Your task to perform on an android device: Add "apple airpods pro" to the cart on amazon, then select checkout. Image 0: 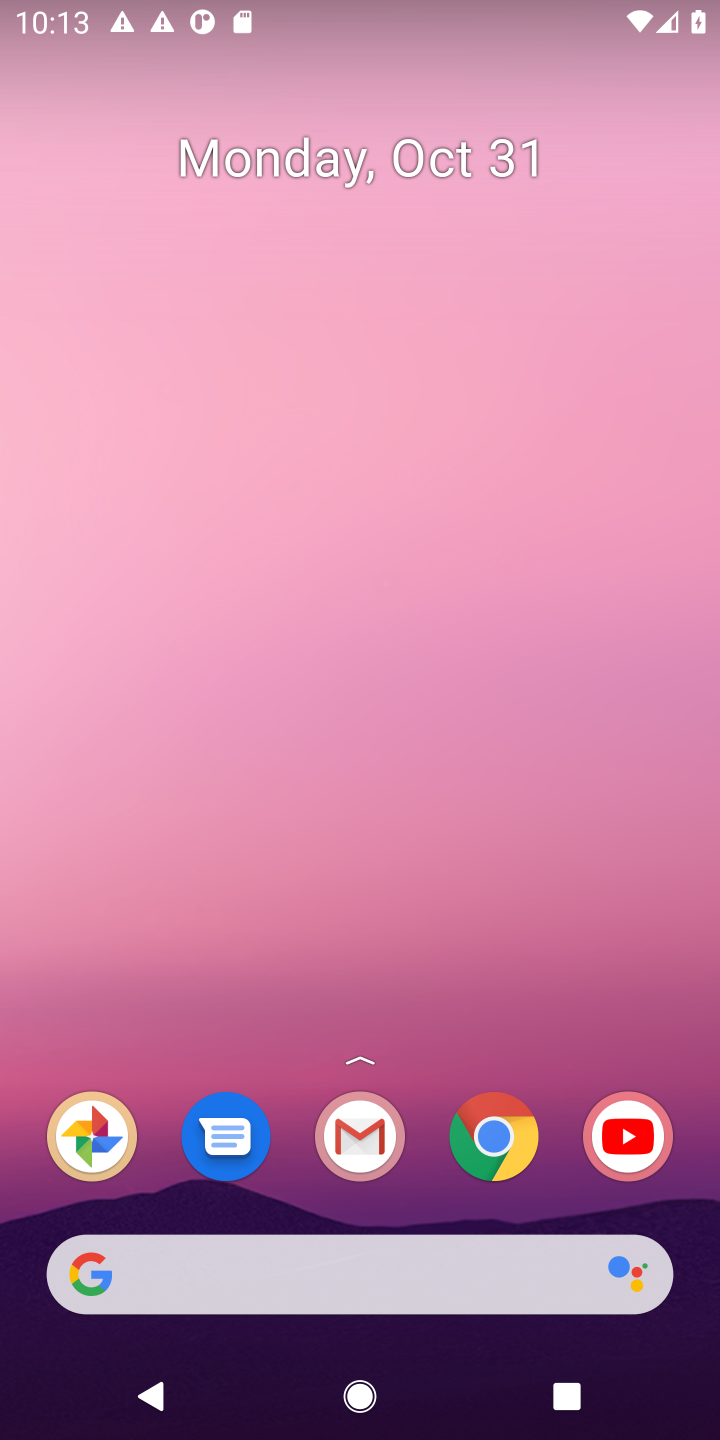
Step 0: press home button
Your task to perform on an android device: Add "apple airpods pro" to the cart on amazon, then select checkout. Image 1: 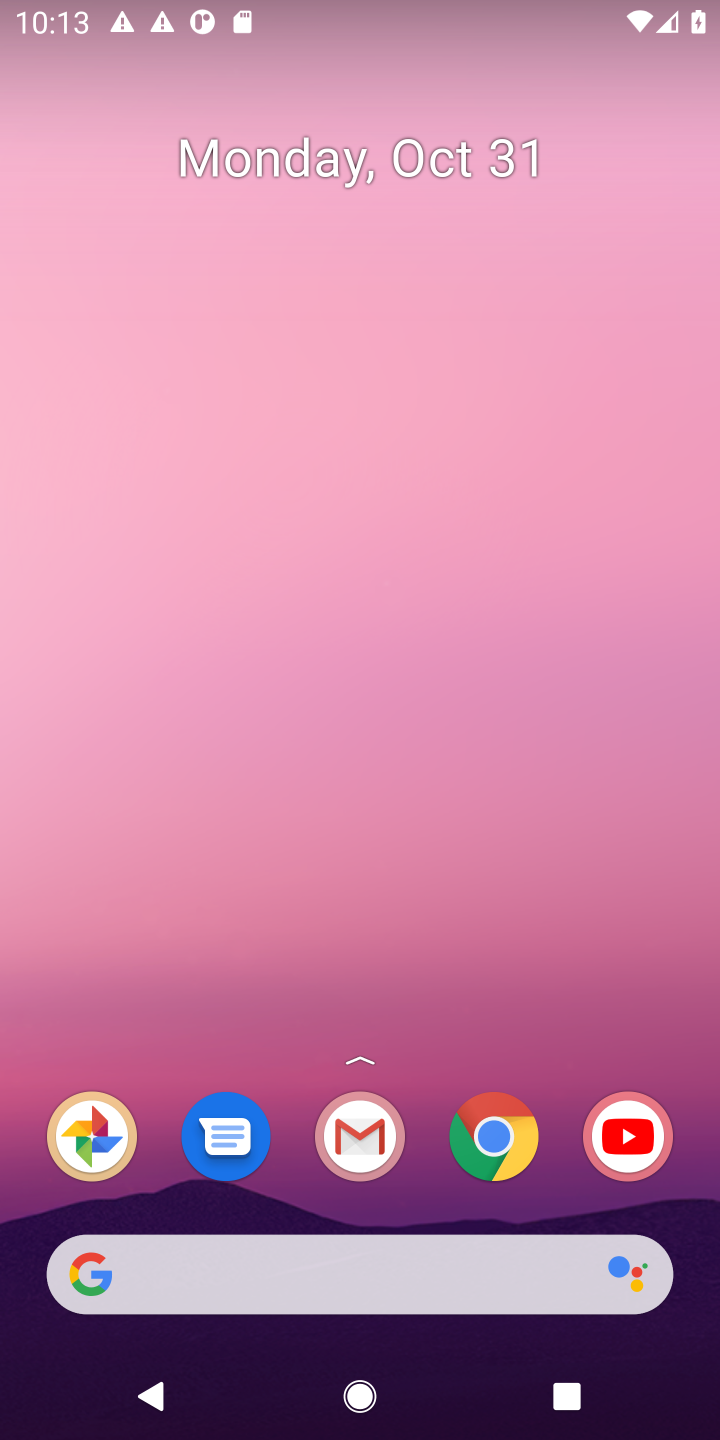
Step 1: click (136, 1277)
Your task to perform on an android device: Add "apple airpods pro" to the cart on amazon, then select checkout. Image 2: 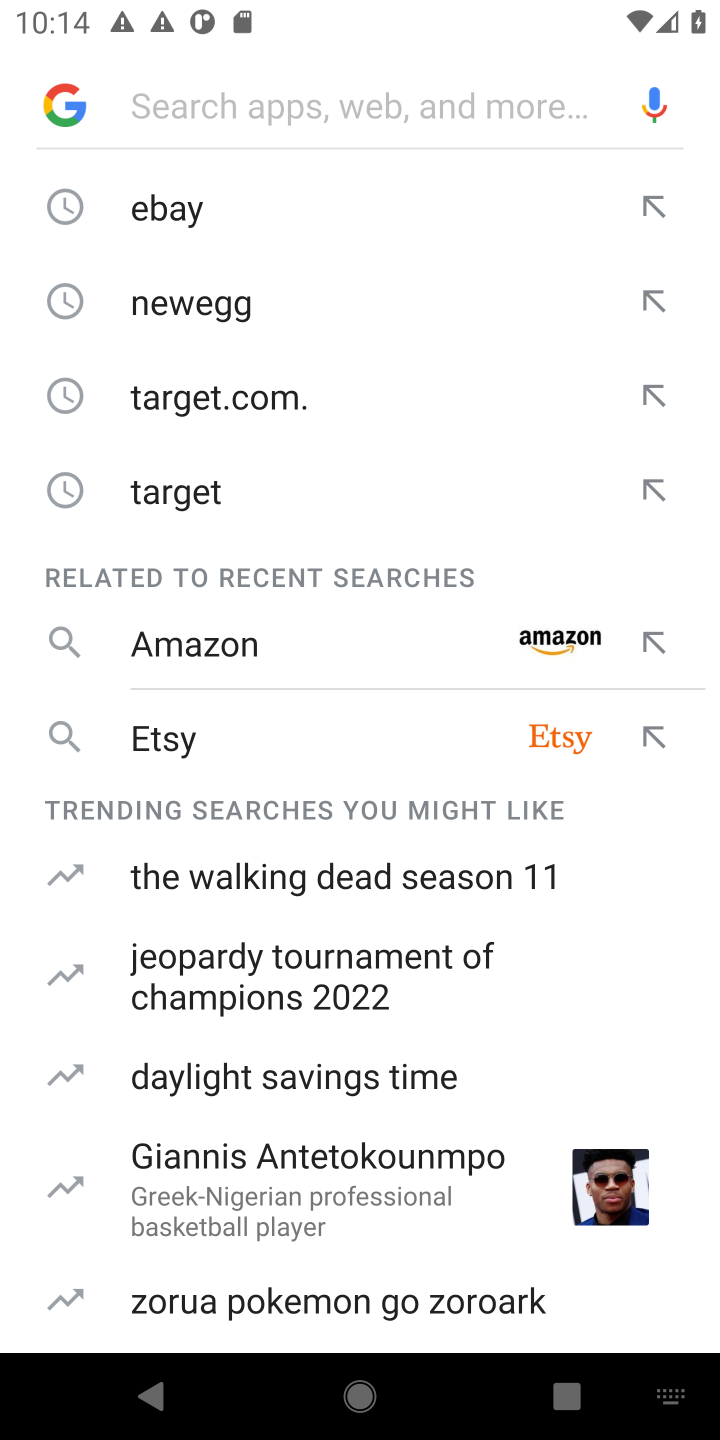
Step 2: press enter
Your task to perform on an android device: Add "apple airpods pro" to the cart on amazon, then select checkout. Image 3: 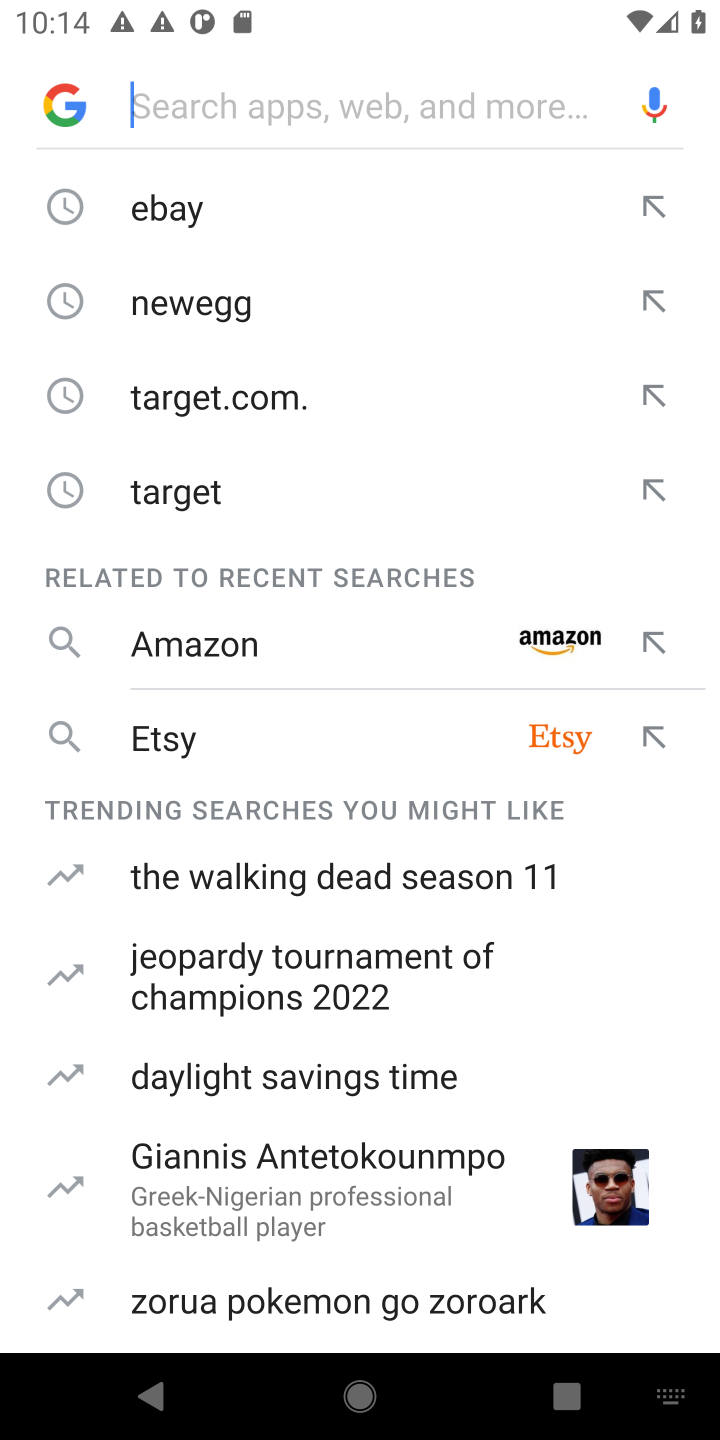
Step 3: type "amazon"
Your task to perform on an android device: Add "apple airpods pro" to the cart on amazon, then select checkout. Image 4: 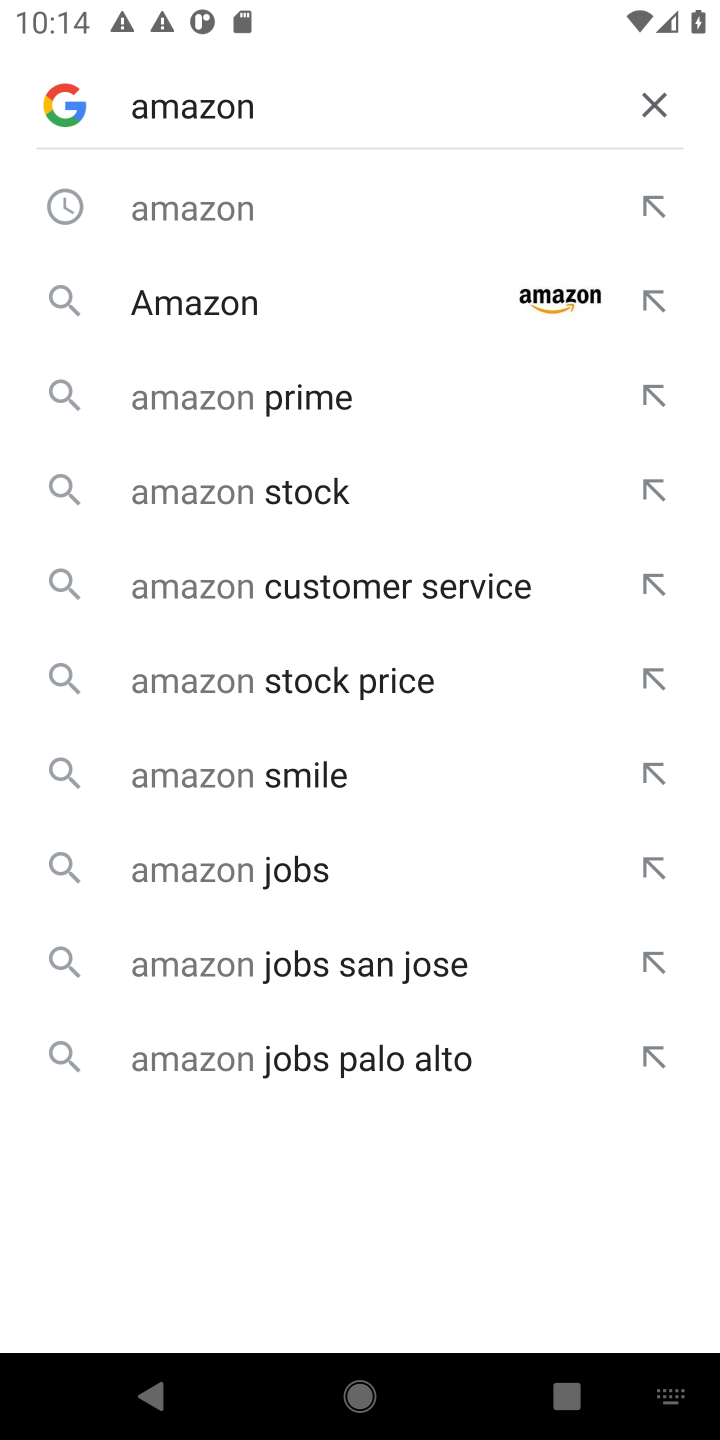
Step 4: press enter
Your task to perform on an android device: Add "apple airpods pro" to the cart on amazon, then select checkout. Image 5: 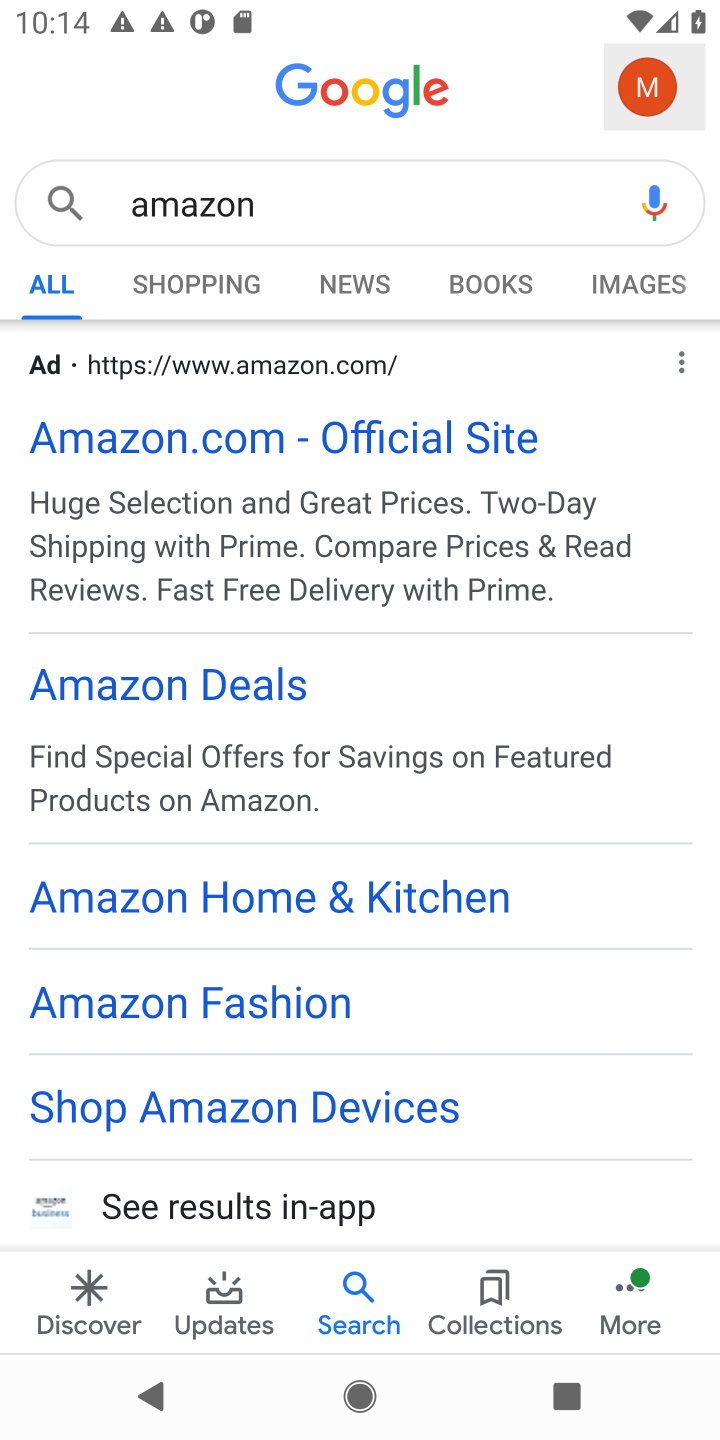
Step 5: click (340, 427)
Your task to perform on an android device: Add "apple airpods pro" to the cart on amazon, then select checkout. Image 6: 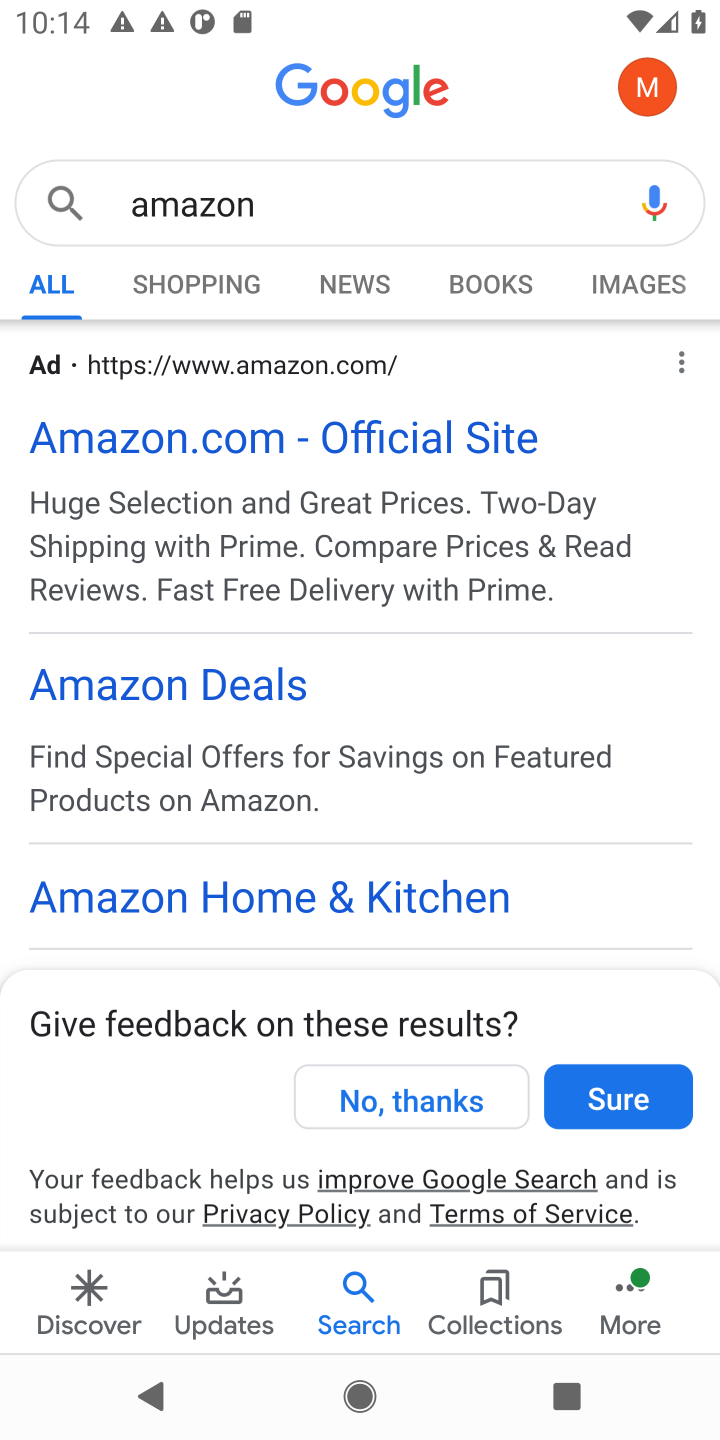
Step 6: click (340, 427)
Your task to perform on an android device: Add "apple airpods pro" to the cart on amazon, then select checkout. Image 7: 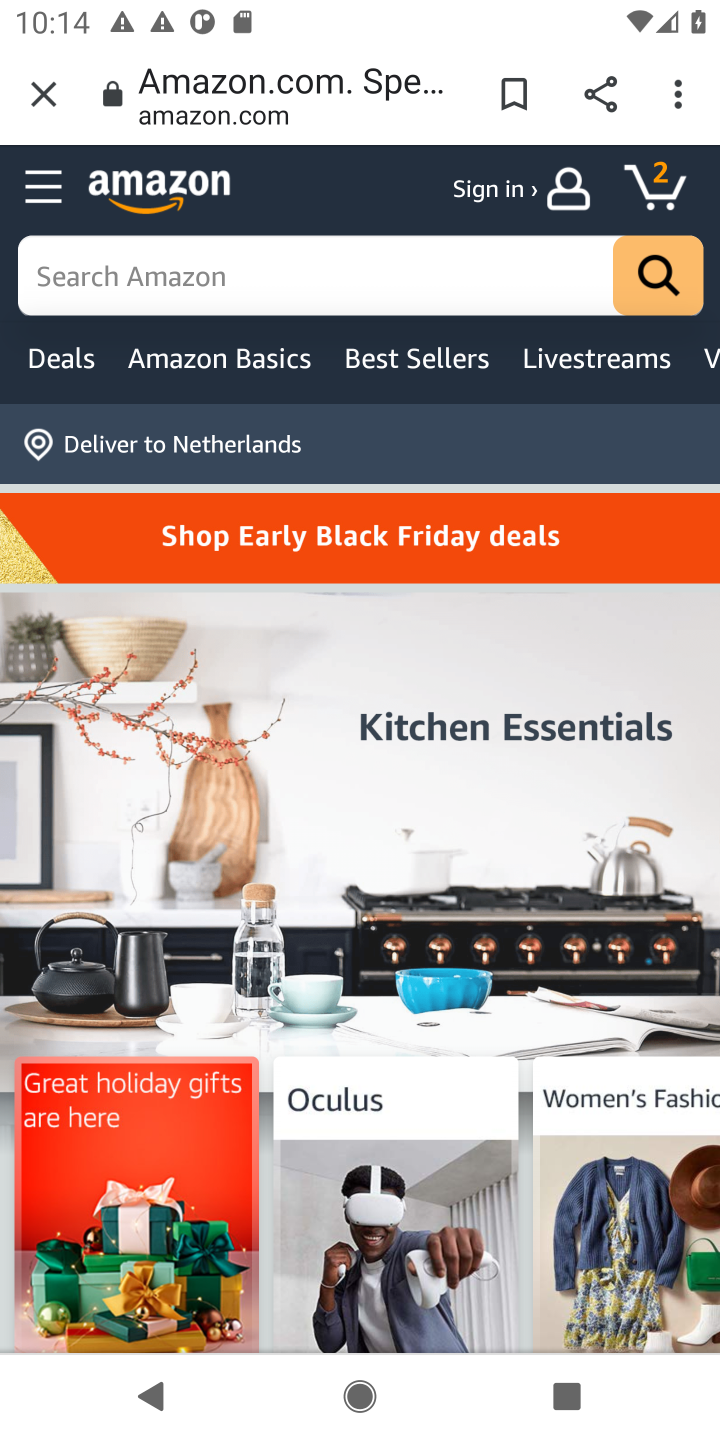
Step 7: click (276, 252)
Your task to perform on an android device: Add "apple airpods pro" to the cart on amazon, then select checkout. Image 8: 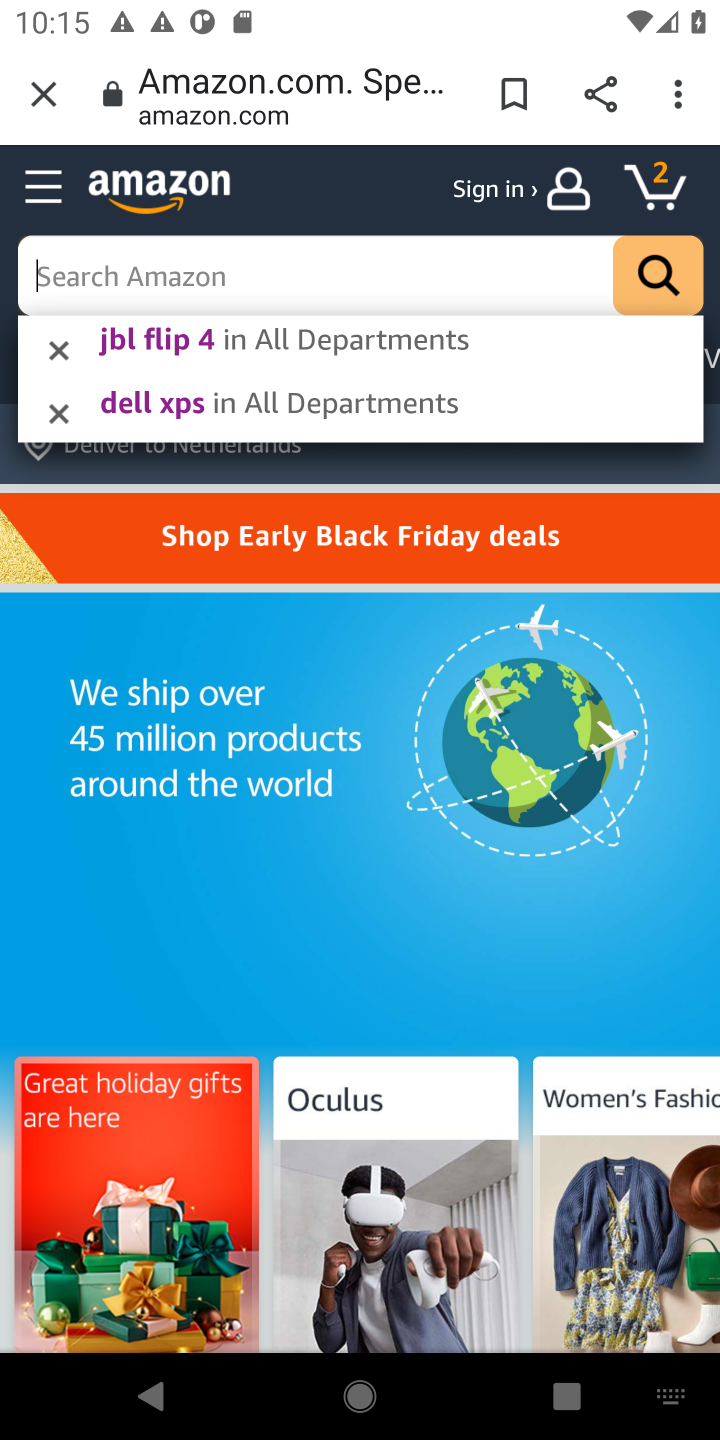
Step 8: type "apple airpods pro"
Your task to perform on an android device: Add "apple airpods pro" to the cart on amazon, then select checkout. Image 9: 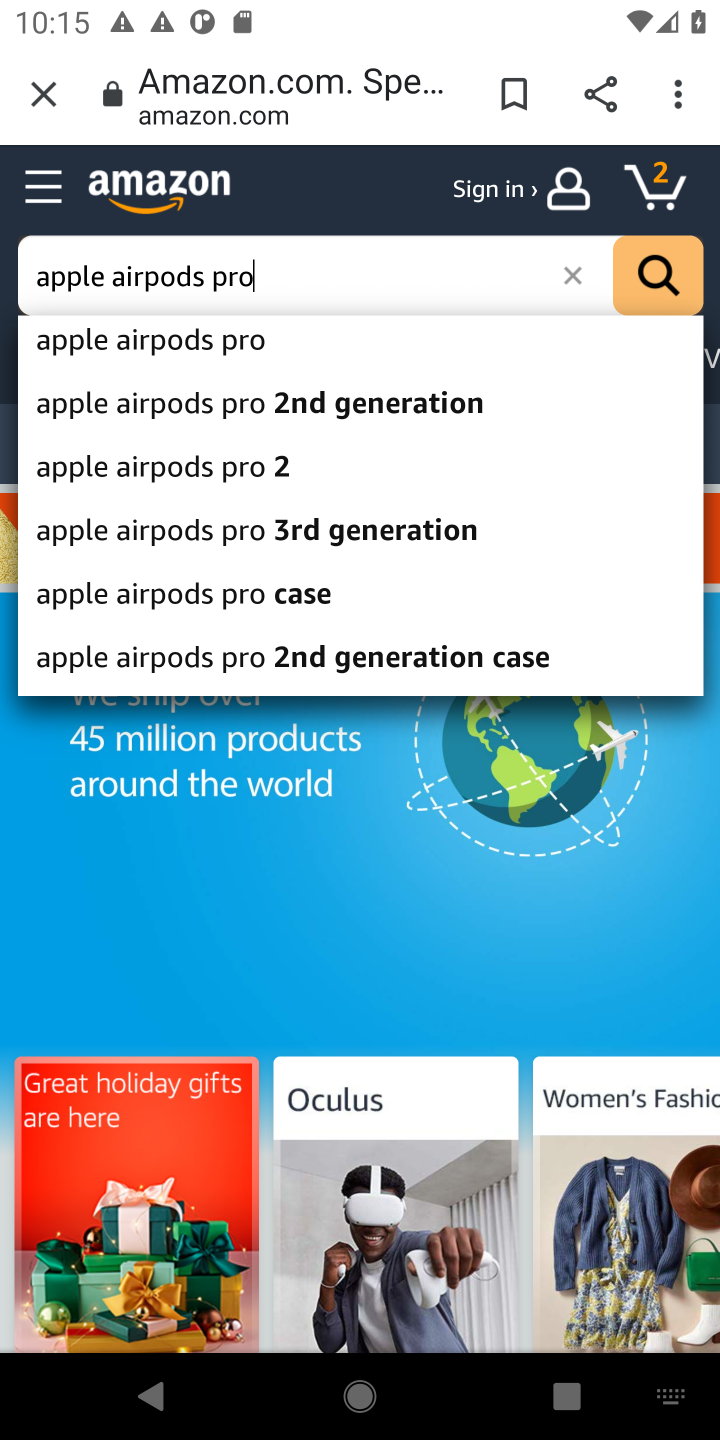
Step 9: click (649, 266)
Your task to perform on an android device: Add "apple airpods pro" to the cart on amazon, then select checkout. Image 10: 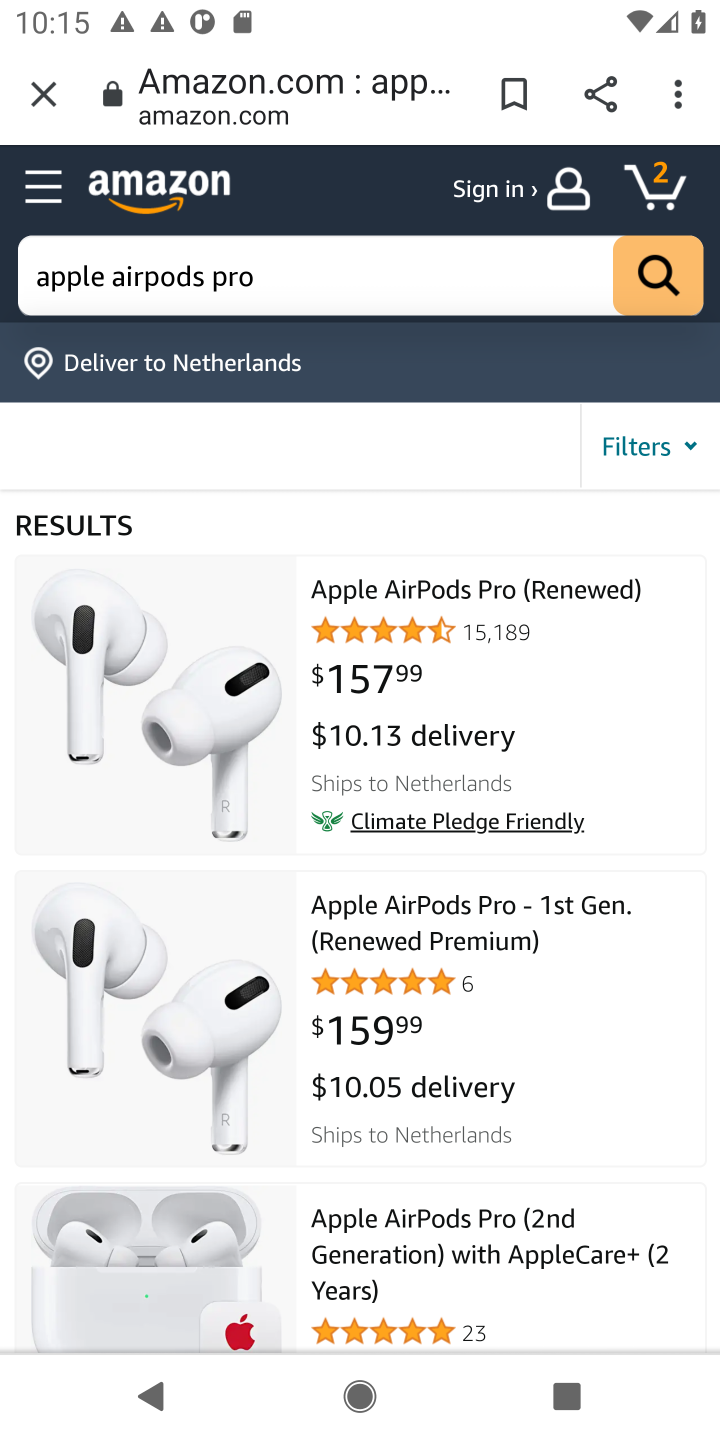
Step 10: click (482, 604)
Your task to perform on an android device: Add "apple airpods pro" to the cart on amazon, then select checkout. Image 11: 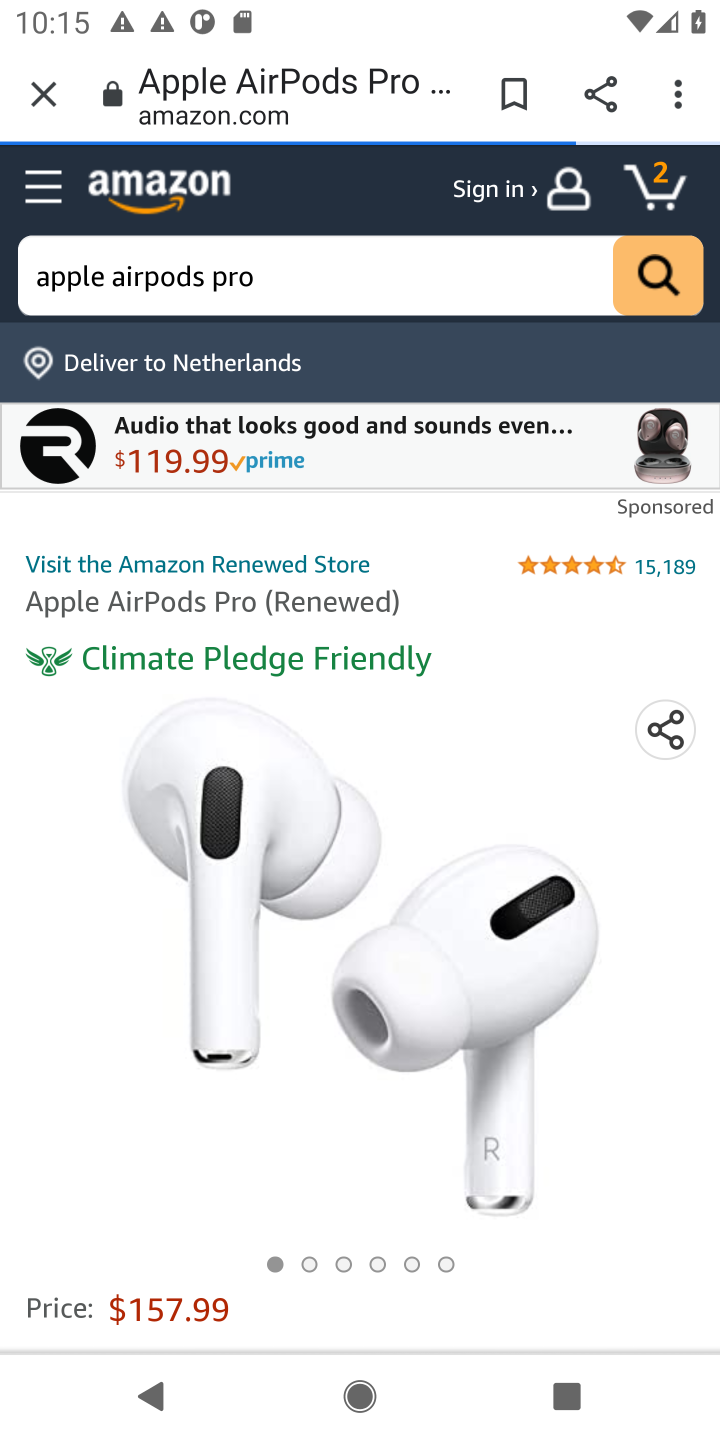
Step 11: drag from (365, 1141) to (447, 683)
Your task to perform on an android device: Add "apple airpods pro" to the cart on amazon, then select checkout. Image 12: 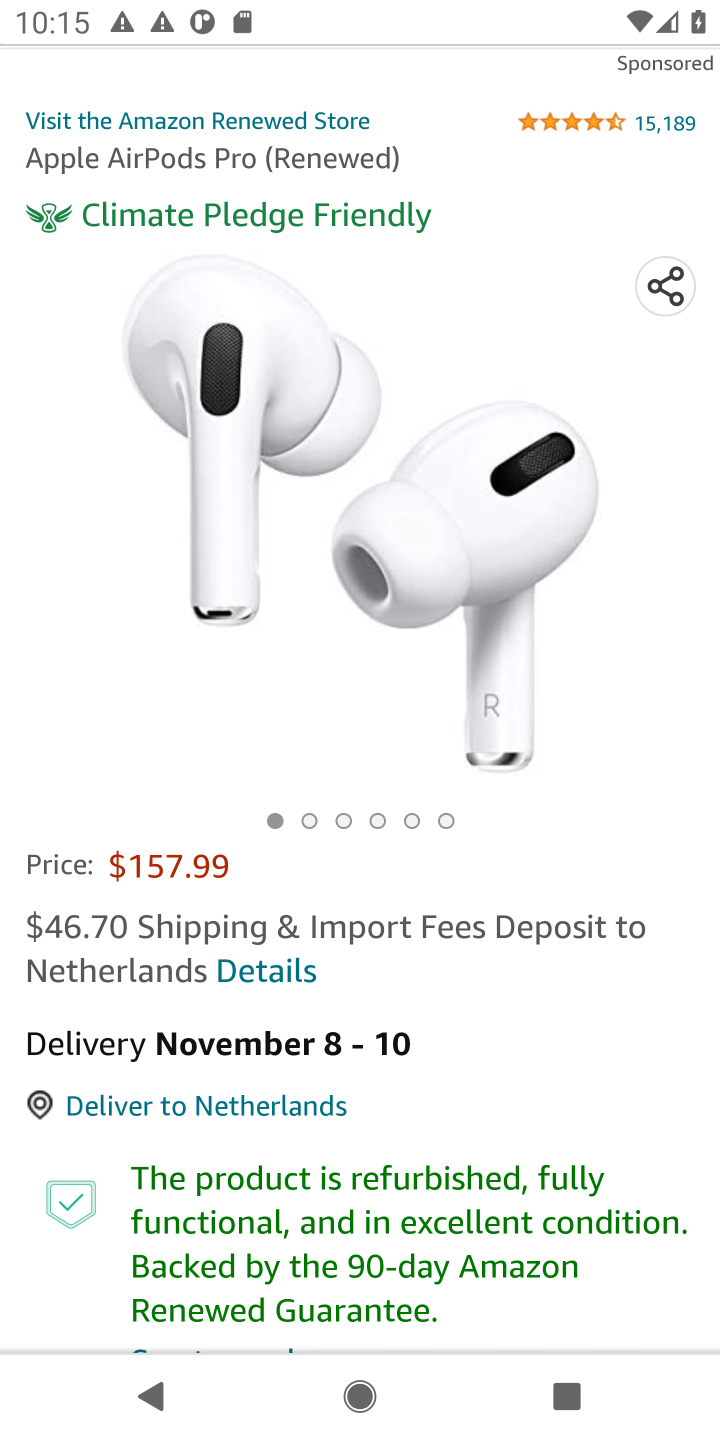
Step 12: drag from (352, 1148) to (397, 674)
Your task to perform on an android device: Add "apple airpods pro" to the cart on amazon, then select checkout. Image 13: 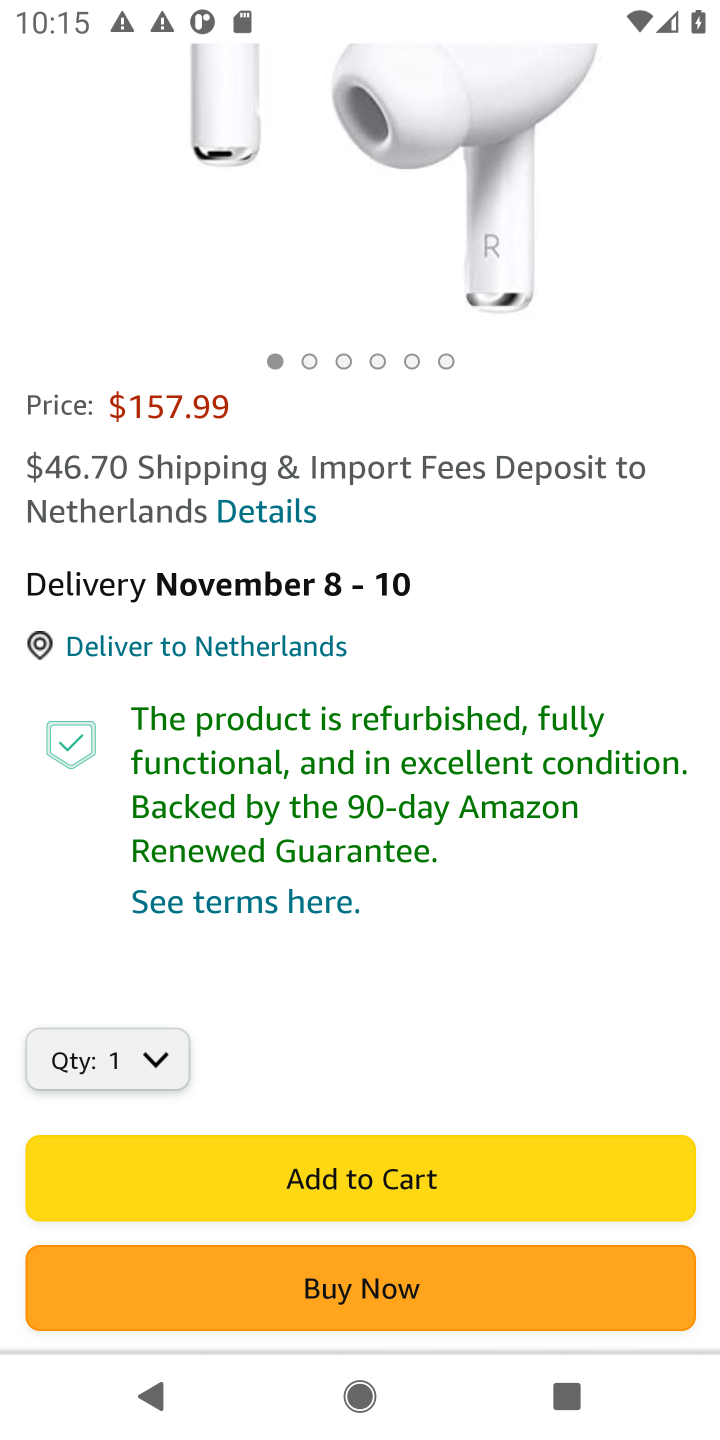
Step 13: drag from (276, 1088) to (353, 556)
Your task to perform on an android device: Add "apple airpods pro" to the cart on amazon, then select checkout. Image 14: 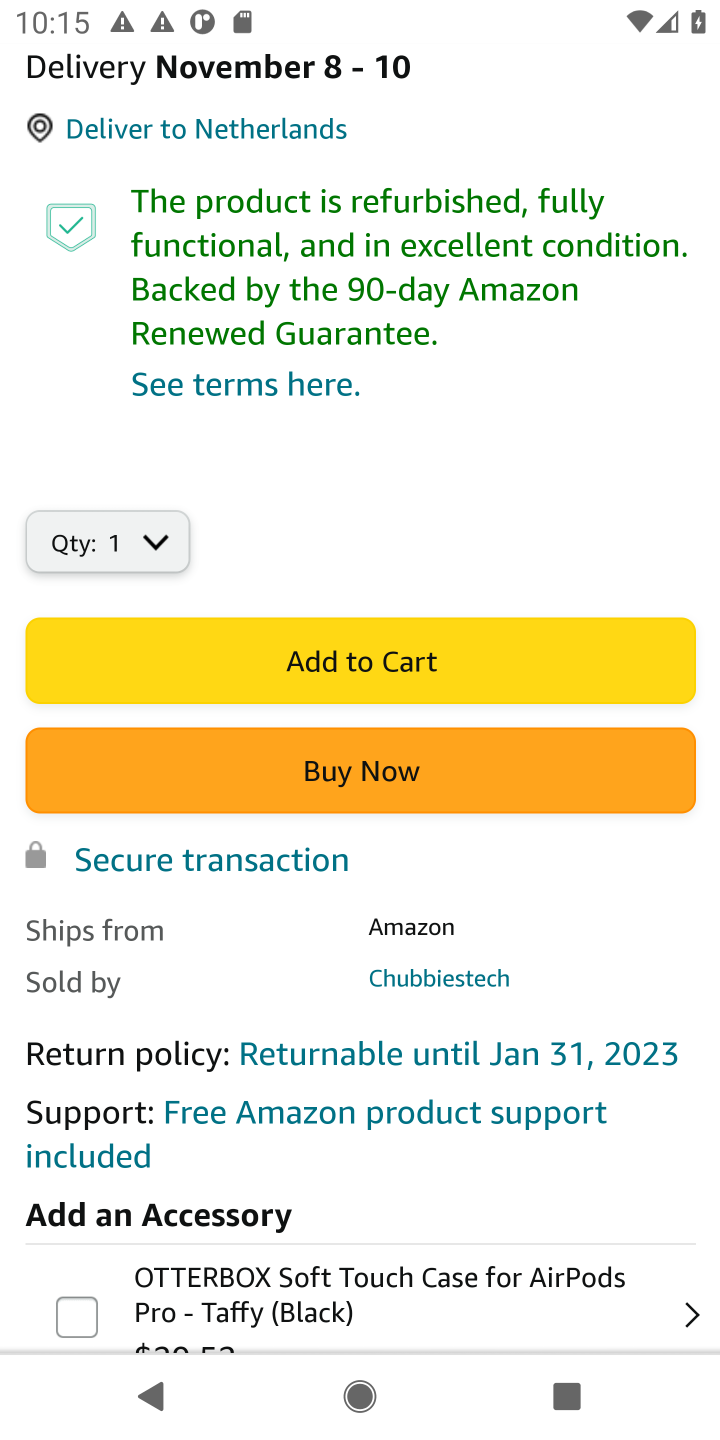
Step 14: click (372, 657)
Your task to perform on an android device: Add "apple airpods pro" to the cart on amazon, then select checkout. Image 15: 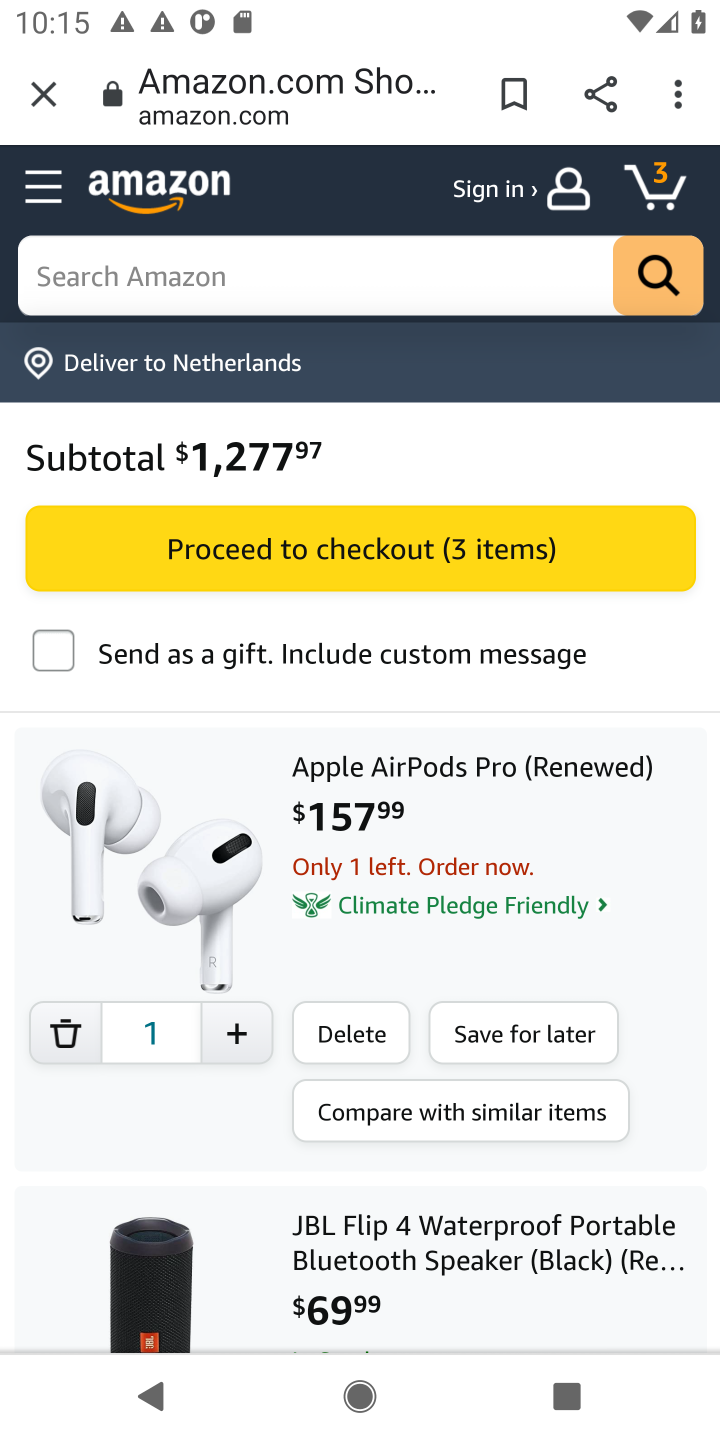
Step 15: click (440, 539)
Your task to perform on an android device: Add "apple airpods pro" to the cart on amazon, then select checkout. Image 16: 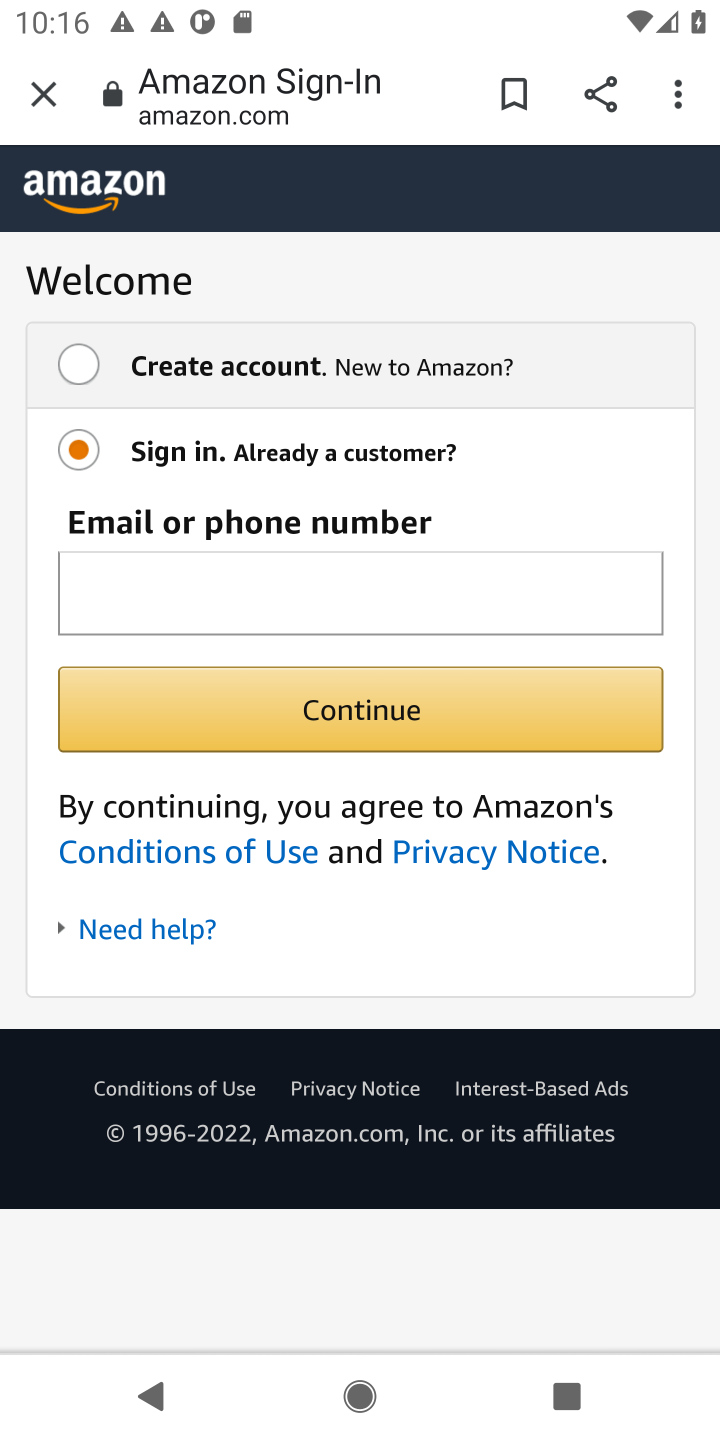
Step 16: task complete